Your task to perform on an android device: Open location settings Image 0: 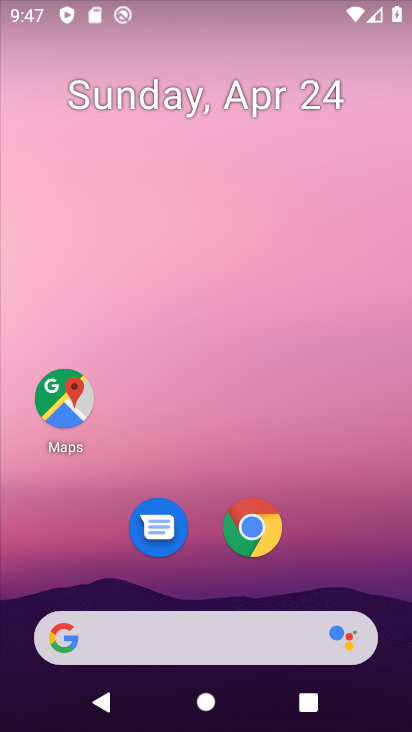
Step 0: drag from (218, 496) to (253, 123)
Your task to perform on an android device: Open location settings Image 1: 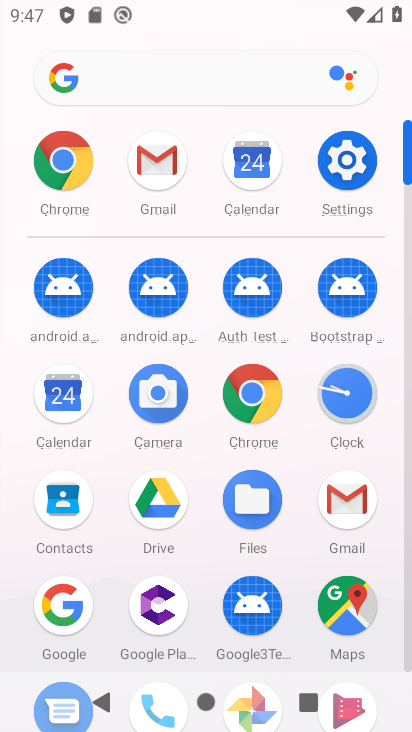
Step 1: click (367, 177)
Your task to perform on an android device: Open location settings Image 2: 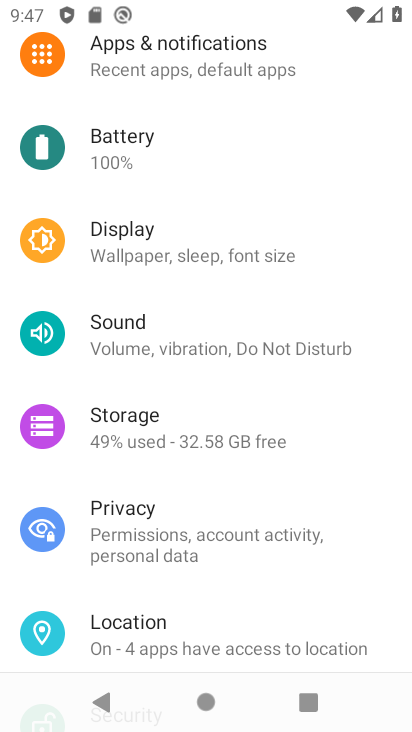
Step 2: click (133, 632)
Your task to perform on an android device: Open location settings Image 3: 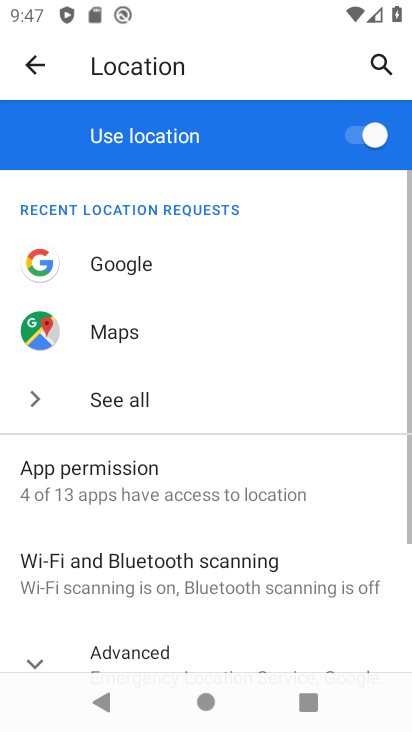
Step 3: task complete